Your task to perform on an android device: open device folders in google photos Image 0: 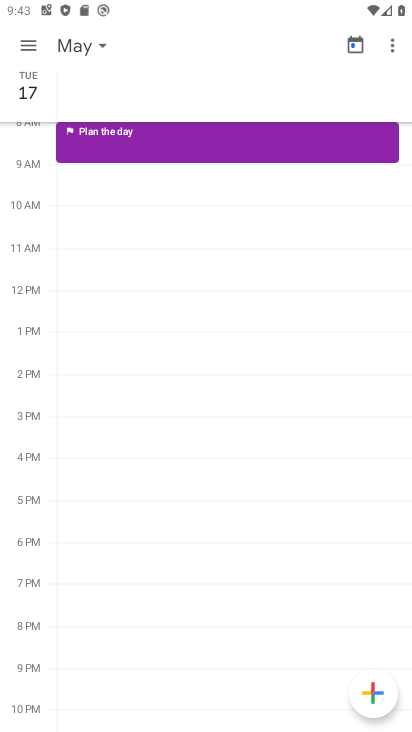
Step 0: press home button
Your task to perform on an android device: open device folders in google photos Image 1: 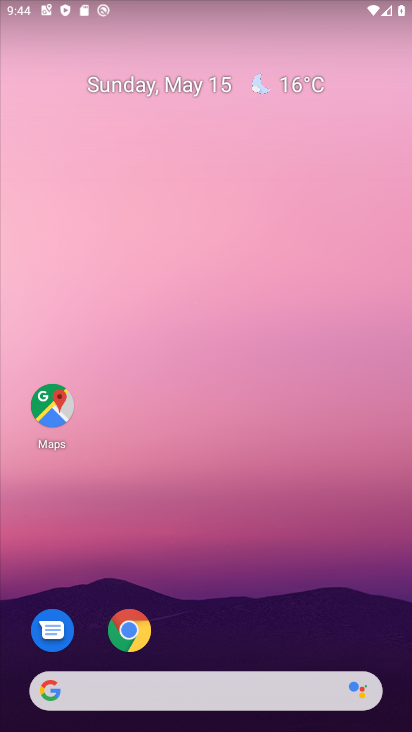
Step 1: drag from (230, 634) to (223, 246)
Your task to perform on an android device: open device folders in google photos Image 2: 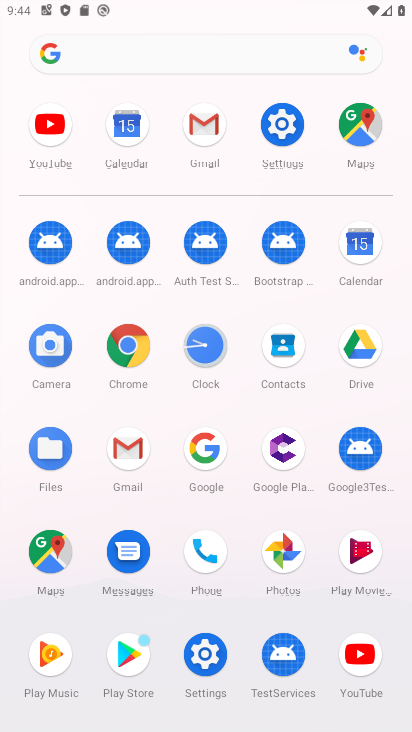
Step 2: click (292, 555)
Your task to perform on an android device: open device folders in google photos Image 3: 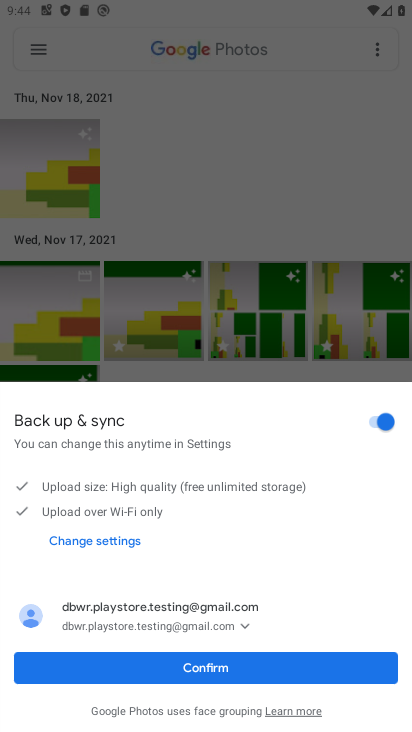
Step 3: click (222, 656)
Your task to perform on an android device: open device folders in google photos Image 4: 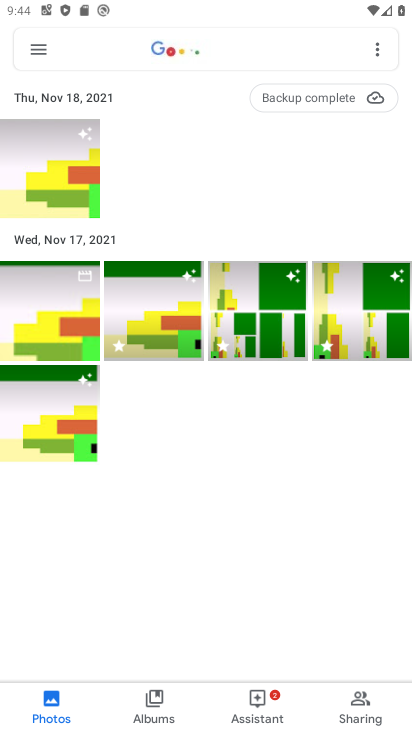
Step 4: click (33, 53)
Your task to perform on an android device: open device folders in google photos Image 5: 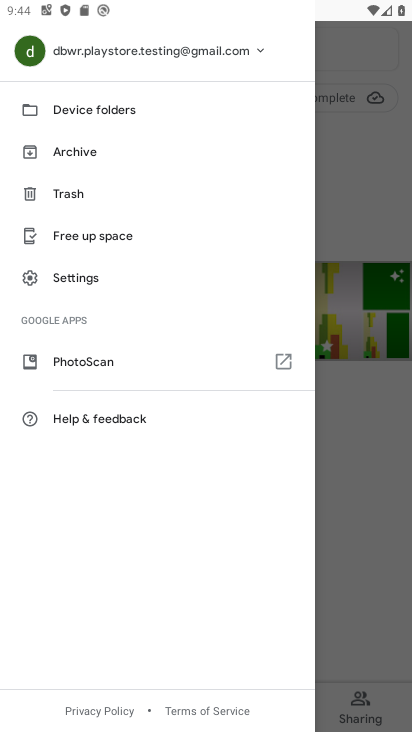
Step 5: click (99, 107)
Your task to perform on an android device: open device folders in google photos Image 6: 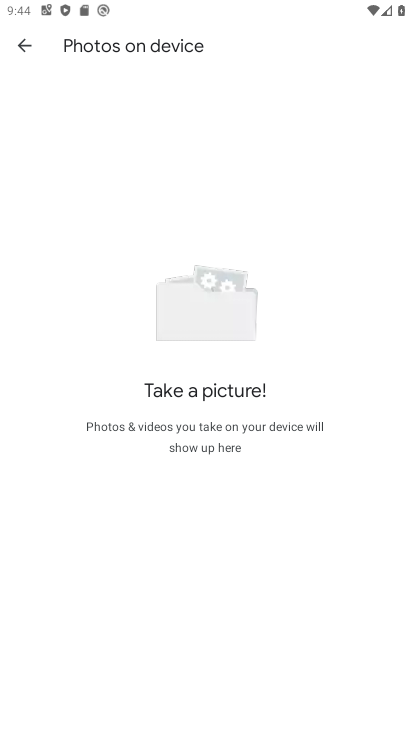
Step 6: task complete